Your task to perform on an android device: Open Google Chrome and open the bookmarks view Image 0: 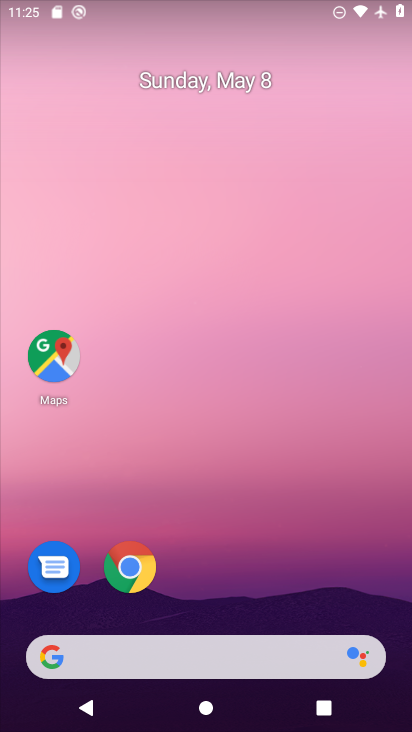
Step 0: drag from (303, 591) to (331, 180)
Your task to perform on an android device: Open Google Chrome and open the bookmarks view Image 1: 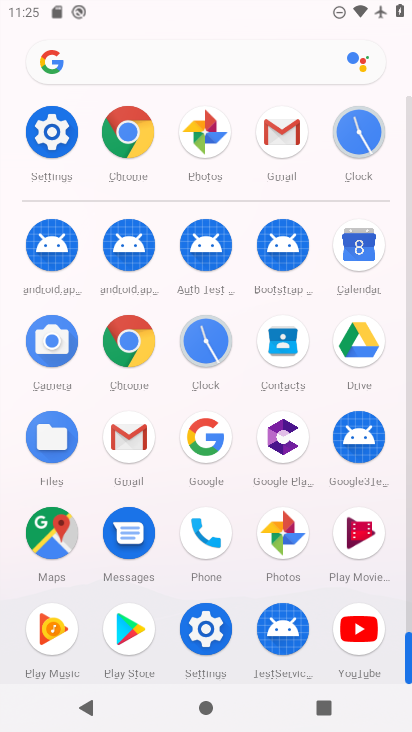
Step 1: click (128, 370)
Your task to perform on an android device: Open Google Chrome and open the bookmarks view Image 2: 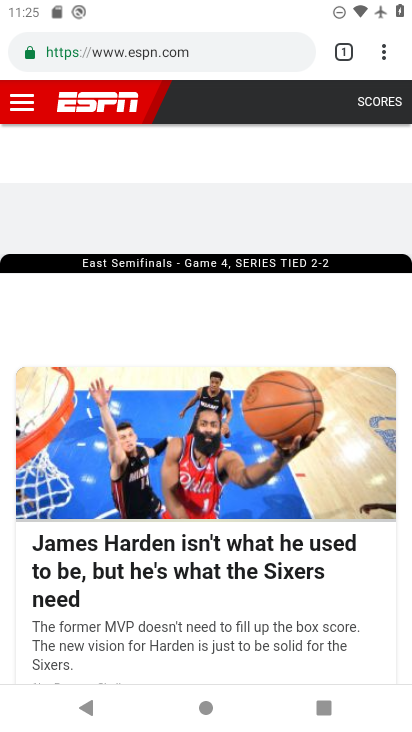
Step 2: click (380, 50)
Your task to perform on an android device: Open Google Chrome and open the bookmarks view Image 3: 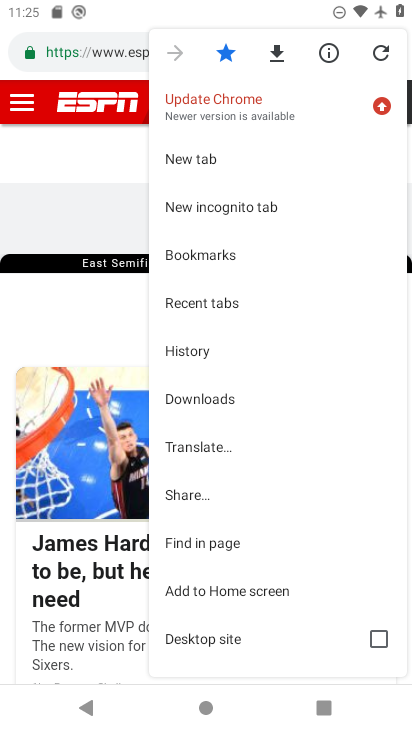
Step 3: click (216, 263)
Your task to perform on an android device: Open Google Chrome and open the bookmarks view Image 4: 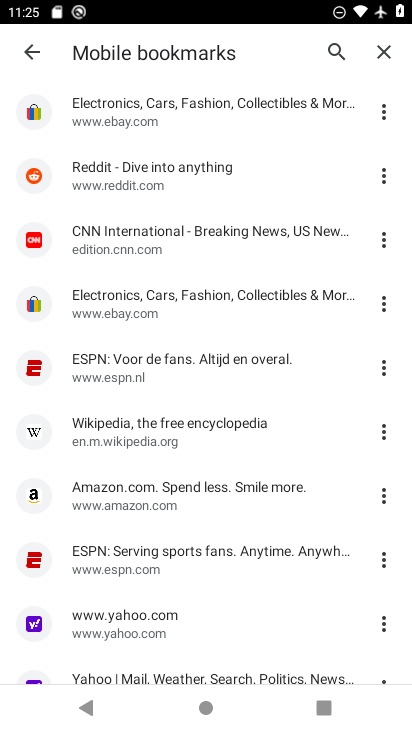
Step 4: task complete